Your task to perform on an android device: turn notification dots off Image 0: 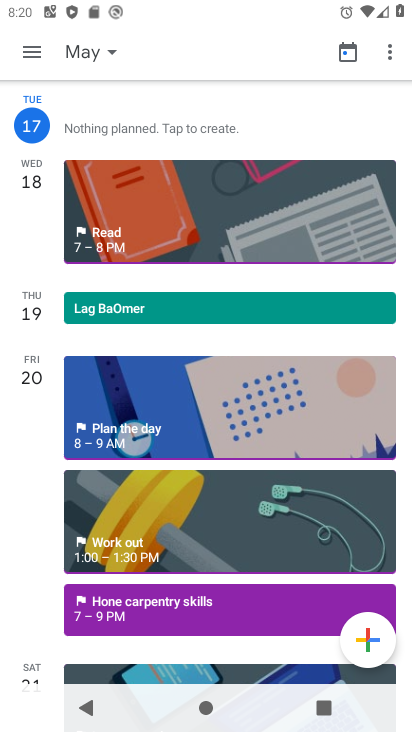
Step 0: press home button
Your task to perform on an android device: turn notification dots off Image 1: 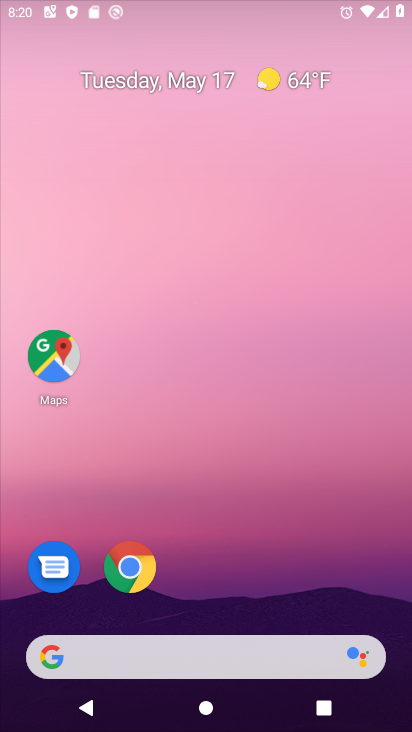
Step 1: drag from (350, 615) to (138, 20)
Your task to perform on an android device: turn notification dots off Image 2: 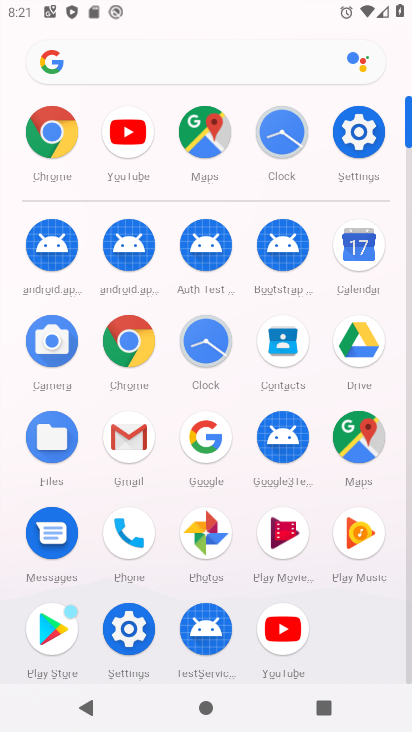
Step 2: click (125, 606)
Your task to perform on an android device: turn notification dots off Image 3: 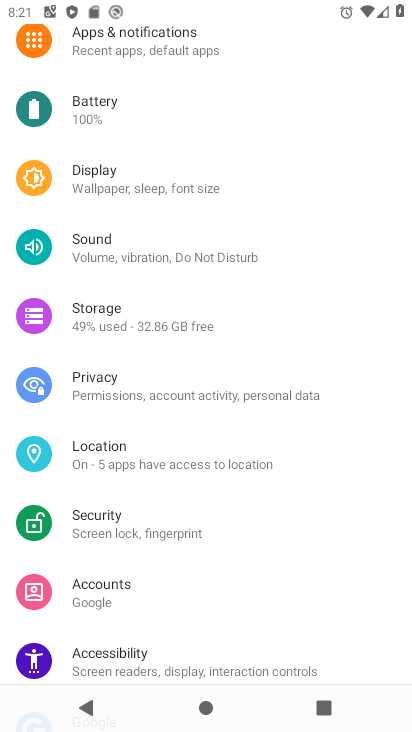
Step 3: click (185, 61)
Your task to perform on an android device: turn notification dots off Image 4: 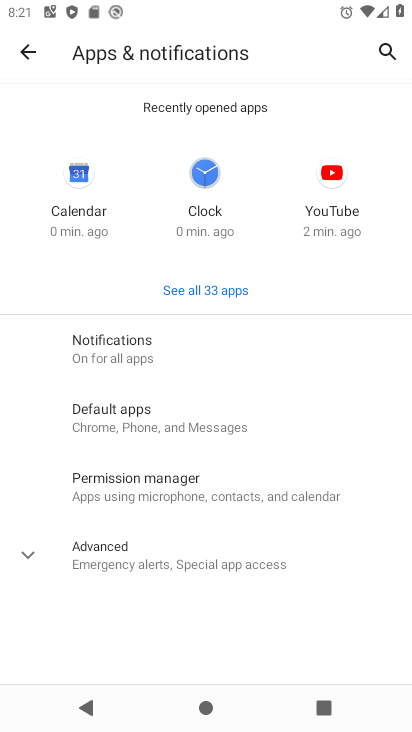
Step 4: click (171, 348)
Your task to perform on an android device: turn notification dots off Image 5: 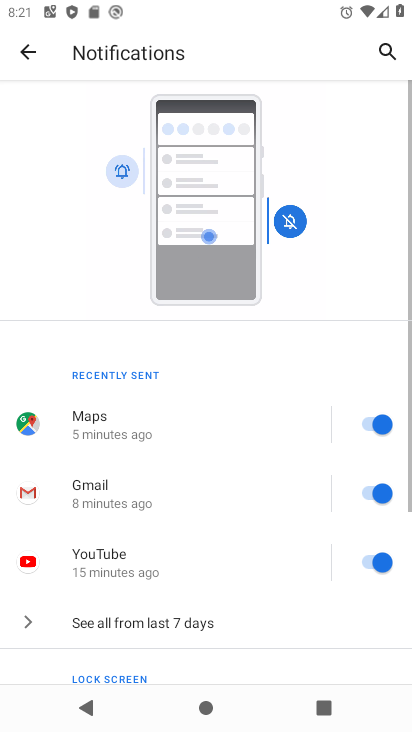
Step 5: drag from (214, 600) to (223, 138)
Your task to perform on an android device: turn notification dots off Image 6: 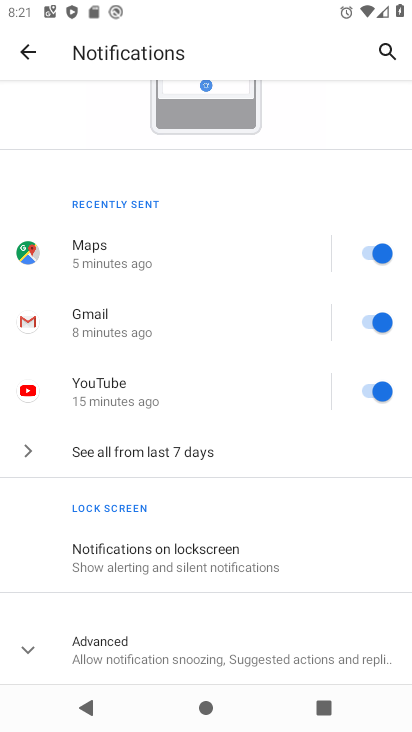
Step 6: click (98, 632)
Your task to perform on an android device: turn notification dots off Image 7: 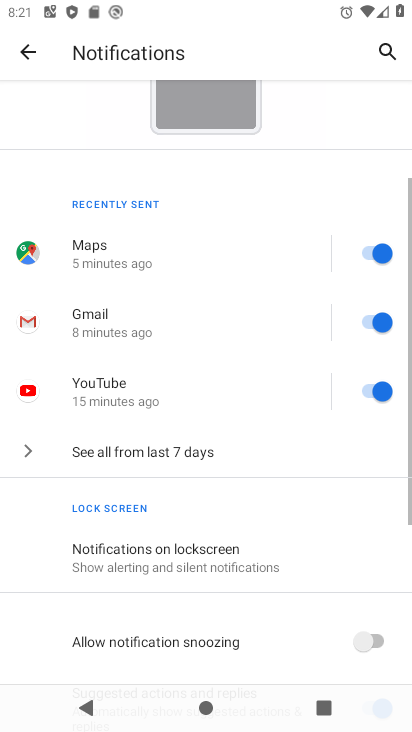
Step 7: drag from (105, 636) to (169, 144)
Your task to perform on an android device: turn notification dots off Image 8: 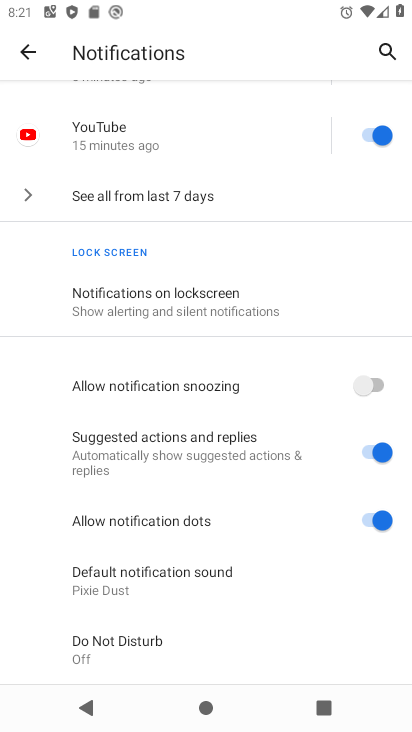
Step 8: click (276, 519)
Your task to perform on an android device: turn notification dots off Image 9: 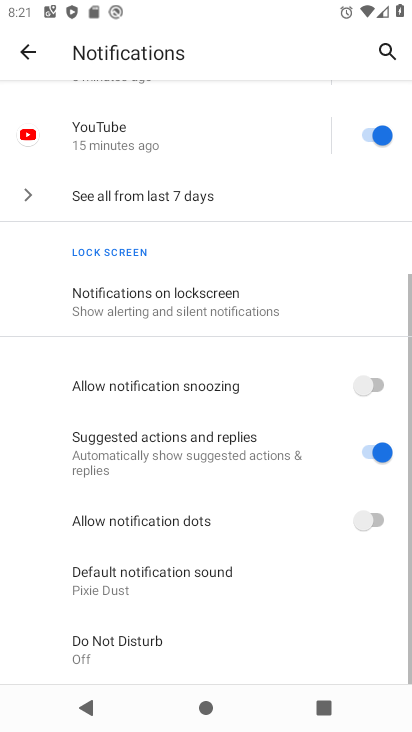
Step 9: task complete